Your task to perform on an android device: Open location settings Image 0: 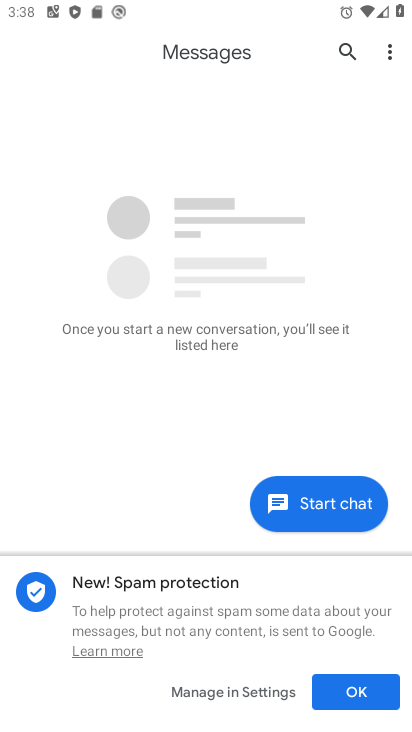
Step 0: press home button
Your task to perform on an android device: Open location settings Image 1: 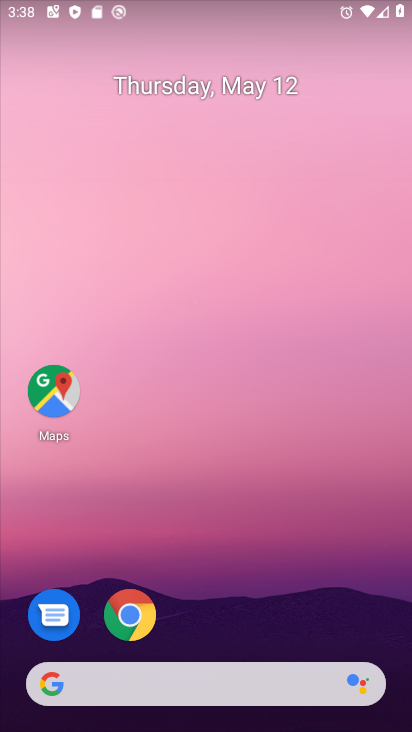
Step 1: drag from (64, 518) to (263, 215)
Your task to perform on an android device: Open location settings Image 2: 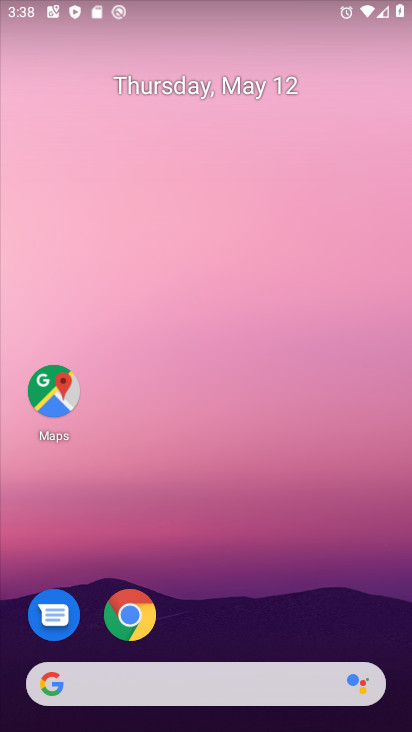
Step 2: drag from (28, 642) to (399, 171)
Your task to perform on an android device: Open location settings Image 3: 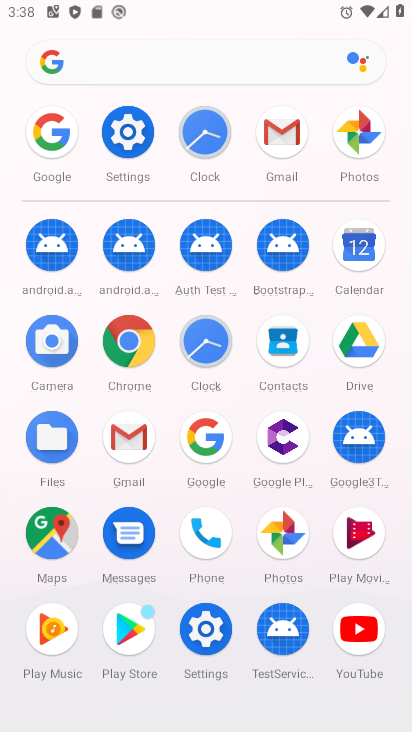
Step 3: click (136, 134)
Your task to perform on an android device: Open location settings Image 4: 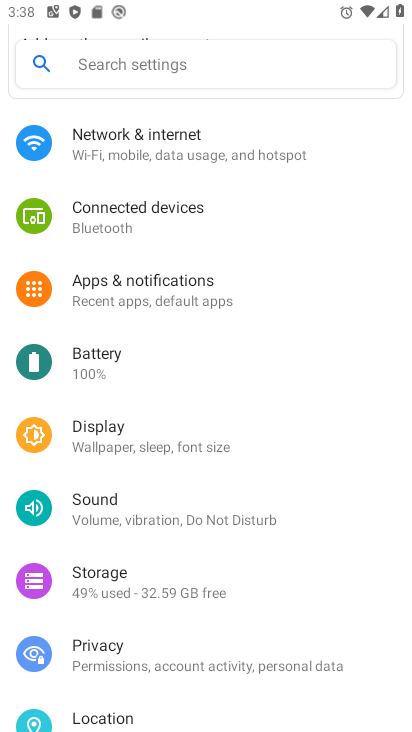
Step 4: click (159, 717)
Your task to perform on an android device: Open location settings Image 5: 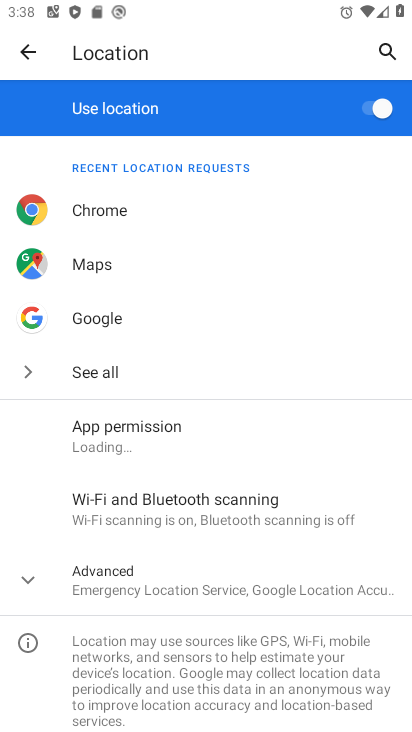
Step 5: drag from (150, 685) to (253, 184)
Your task to perform on an android device: Open location settings Image 6: 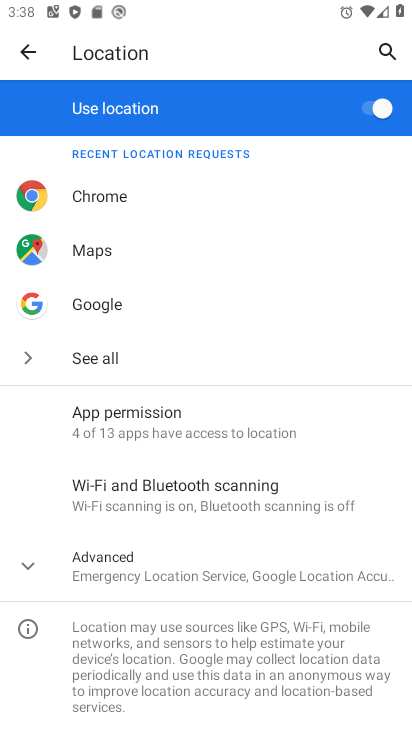
Step 6: click (182, 548)
Your task to perform on an android device: Open location settings Image 7: 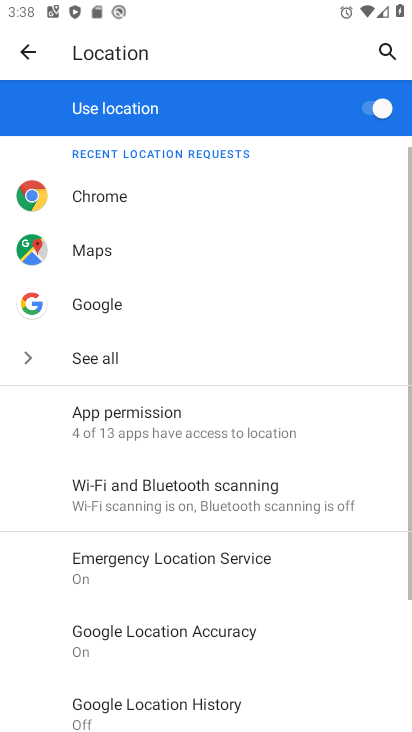
Step 7: task complete